Your task to perform on an android device: What's the weather going to be this weekend? Image 0: 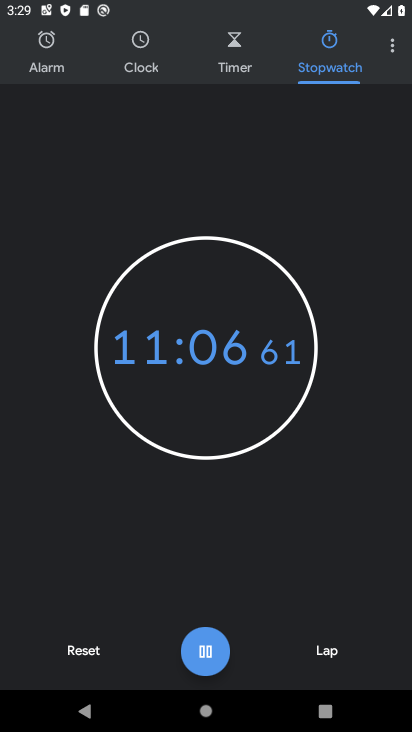
Step 0: press home button
Your task to perform on an android device: What's the weather going to be this weekend? Image 1: 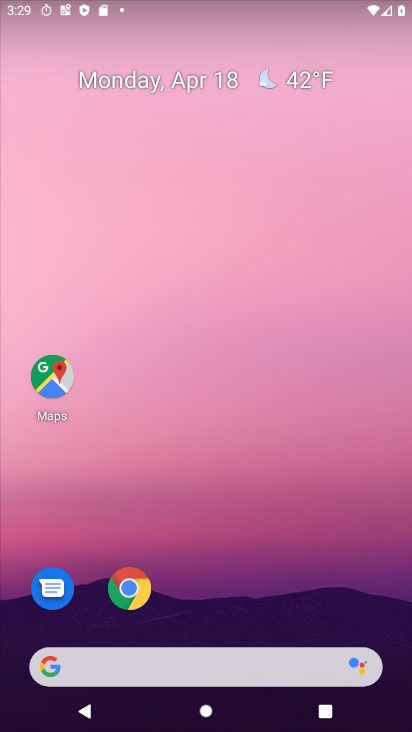
Step 1: click (298, 82)
Your task to perform on an android device: What's the weather going to be this weekend? Image 2: 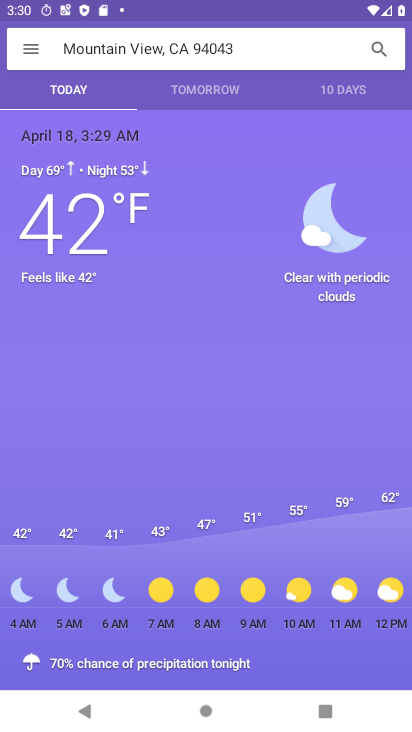
Step 2: click (334, 101)
Your task to perform on an android device: What's the weather going to be this weekend? Image 3: 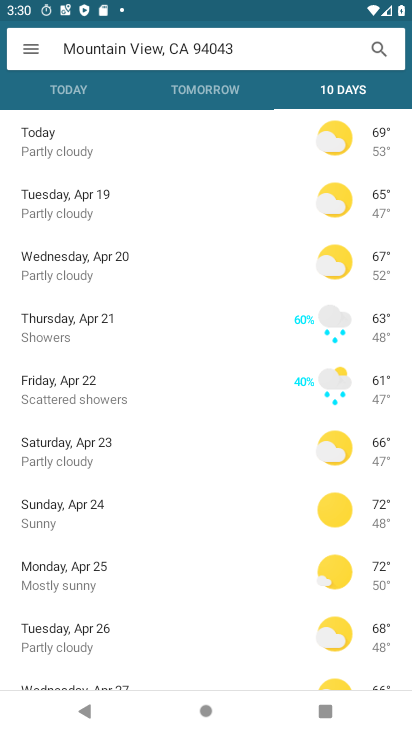
Step 3: click (63, 469)
Your task to perform on an android device: What's the weather going to be this weekend? Image 4: 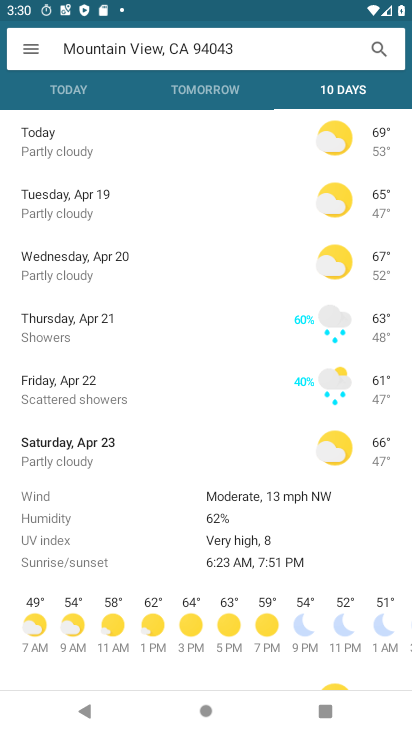
Step 4: task complete